Your task to perform on an android device: Set the phone to "Do not disturb". Image 0: 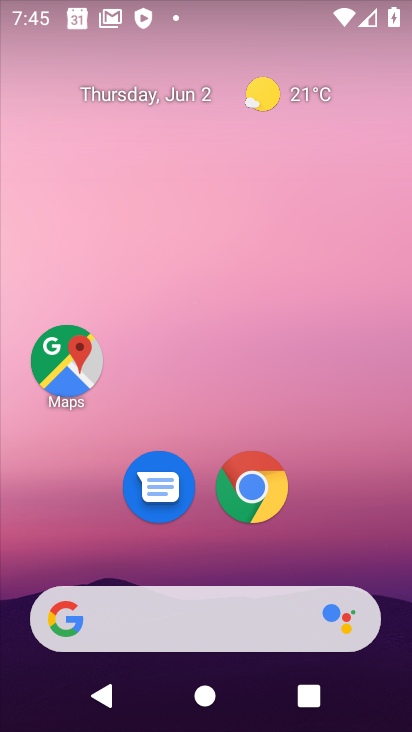
Step 0: drag from (174, 4) to (218, 477)
Your task to perform on an android device: Set the phone to "Do not disturb". Image 1: 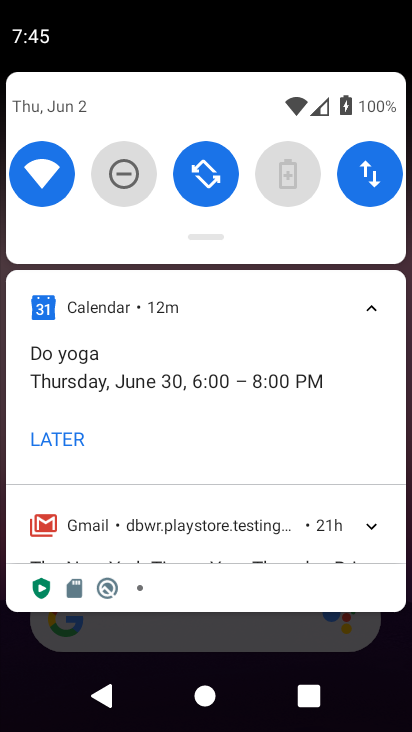
Step 1: click (128, 180)
Your task to perform on an android device: Set the phone to "Do not disturb". Image 2: 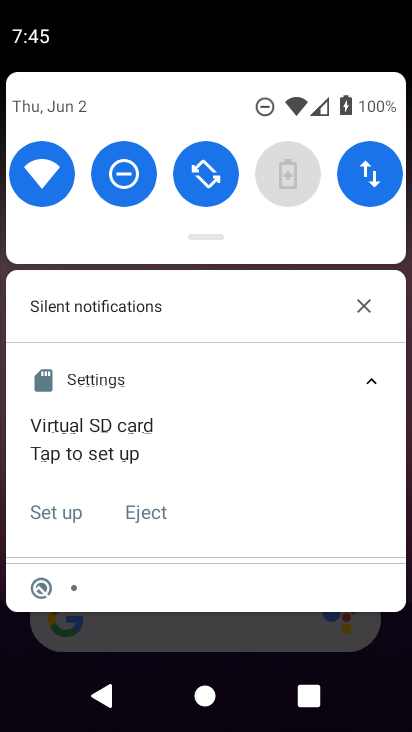
Step 2: task complete